Your task to perform on an android device: turn on priority inbox in the gmail app Image 0: 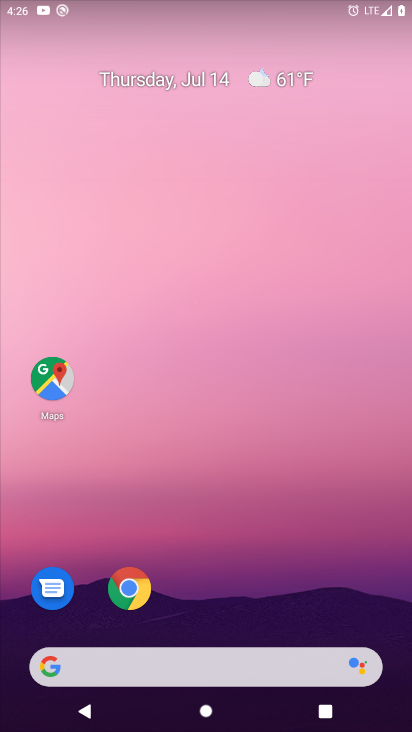
Step 0: press home button
Your task to perform on an android device: turn on priority inbox in the gmail app Image 1: 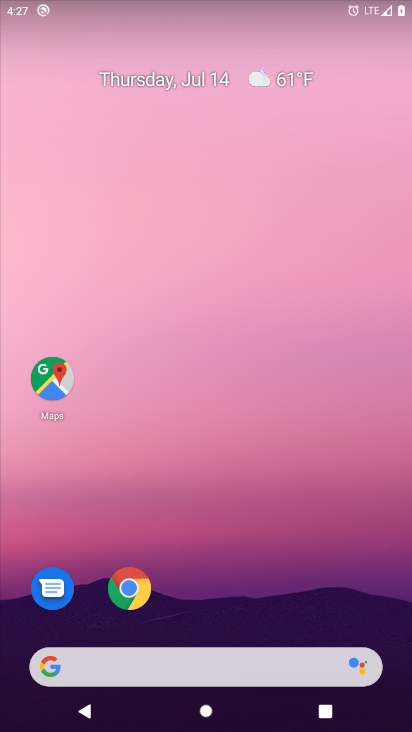
Step 1: drag from (253, 628) to (231, 3)
Your task to perform on an android device: turn on priority inbox in the gmail app Image 2: 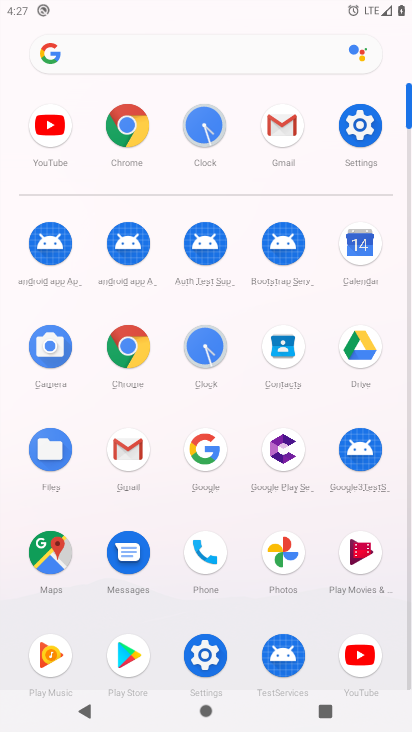
Step 2: click (284, 126)
Your task to perform on an android device: turn on priority inbox in the gmail app Image 3: 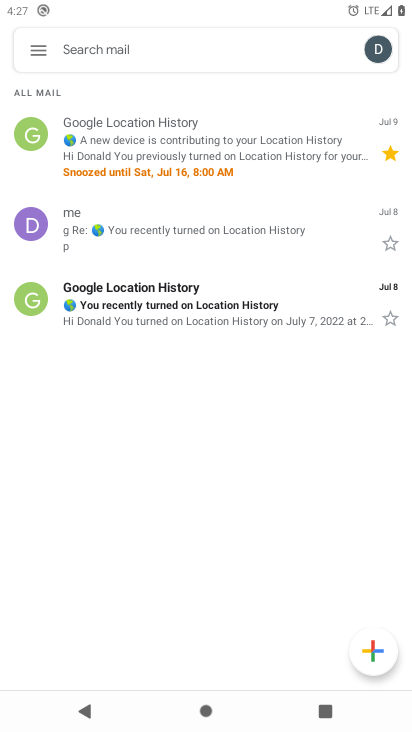
Step 3: click (34, 46)
Your task to perform on an android device: turn on priority inbox in the gmail app Image 4: 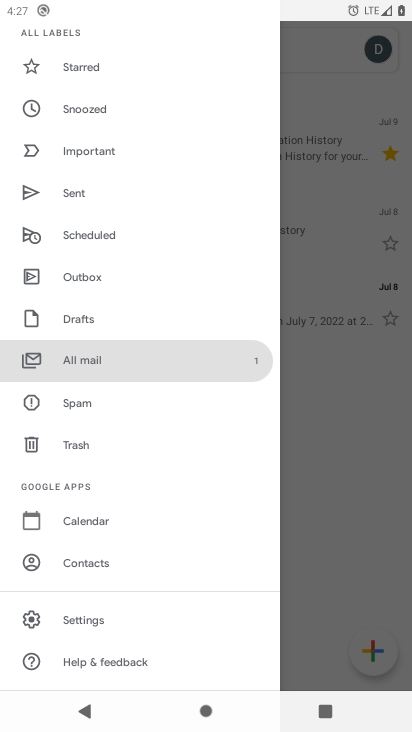
Step 4: click (75, 620)
Your task to perform on an android device: turn on priority inbox in the gmail app Image 5: 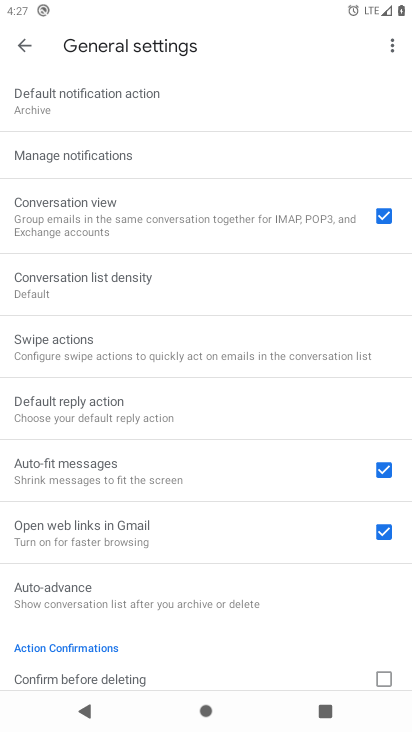
Step 5: drag from (216, 111) to (267, 605)
Your task to perform on an android device: turn on priority inbox in the gmail app Image 6: 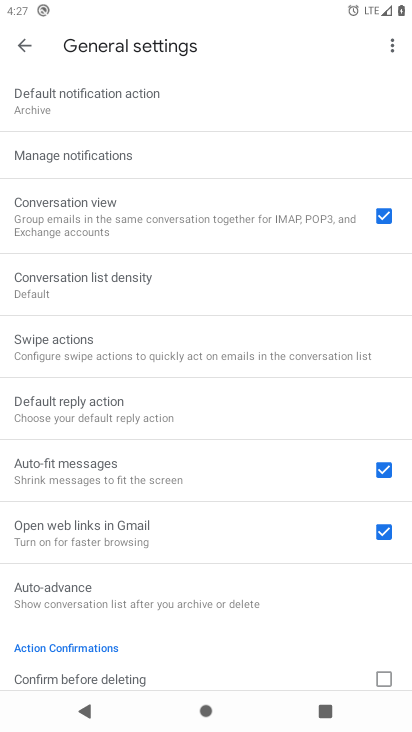
Step 6: click (19, 44)
Your task to perform on an android device: turn on priority inbox in the gmail app Image 7: 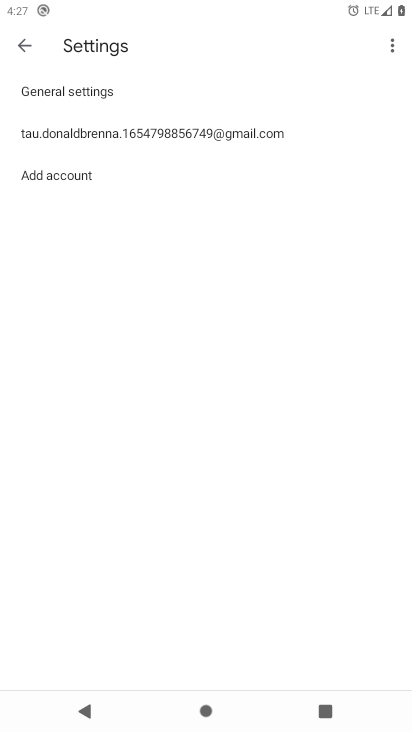
Step 7: click (99, 136)
Your task to perform on an android device: turn on priority inbox in the gmail app Image 8: 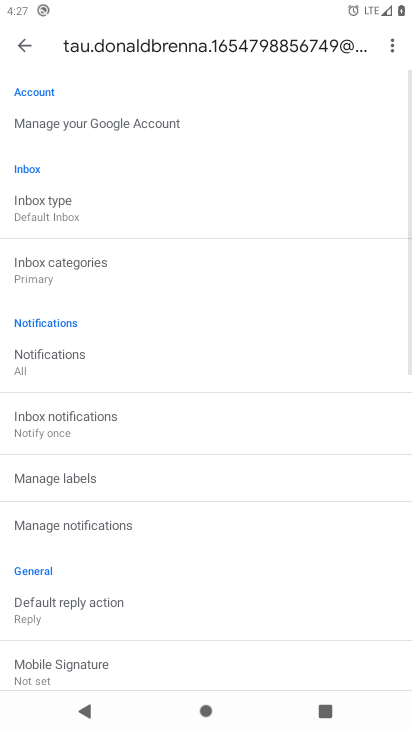
Step 8: click (48, 202)
Your task to perform on an android device: turn on priority inbox in the gmail app Image 9: 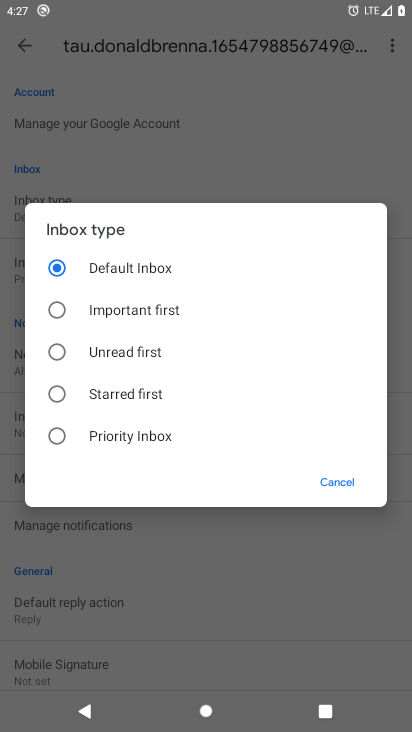
Step 9: click (49, 433)
Your task to perform on an android device: turn on priority inbox in the gmail app Image 10: 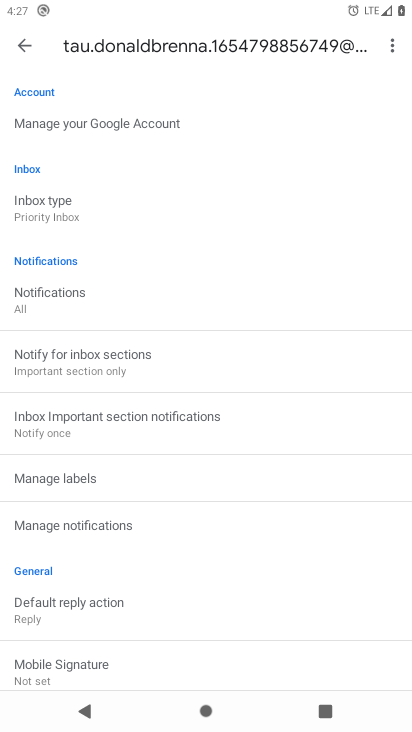
Step 10: task complete